Your task to perform on an android device: What's on my calendar today? Image 0: 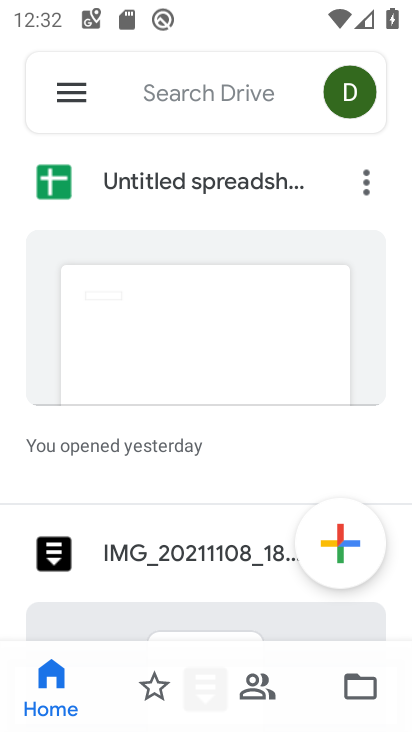
Step 0: press home button
Your task to perform on an android device: What's on my calendar today? Image 1: 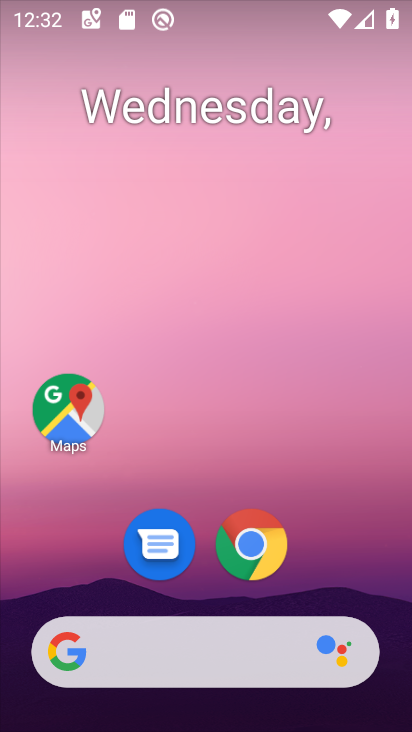
Step 1: drag from (201, 478) to (188, 99)
Your task to perform on an android device: What's on my calendar today? Image 2: 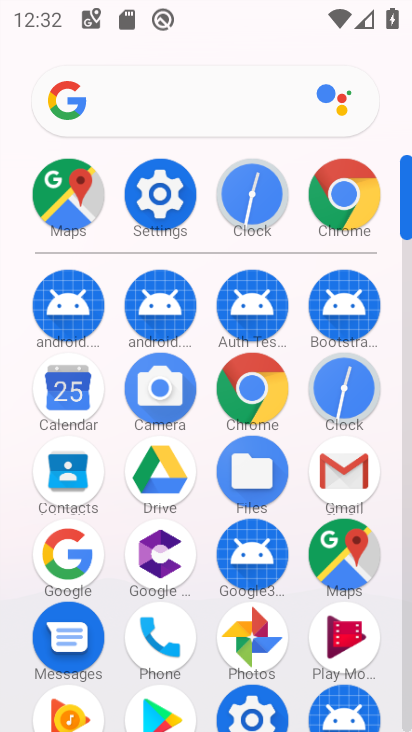
Step 2: click (76, 400)
Your task to perform on an android device: What's on my calendar today? Image 3: 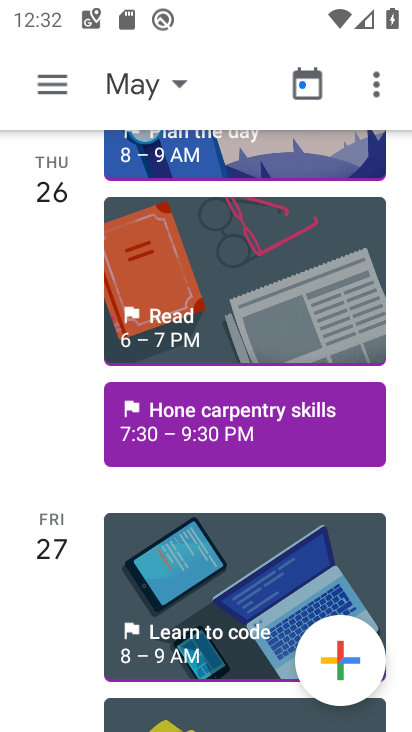
Step 3: click (73, 87)
Your task to perform on an android device: What's on my calendar today? Image 4: 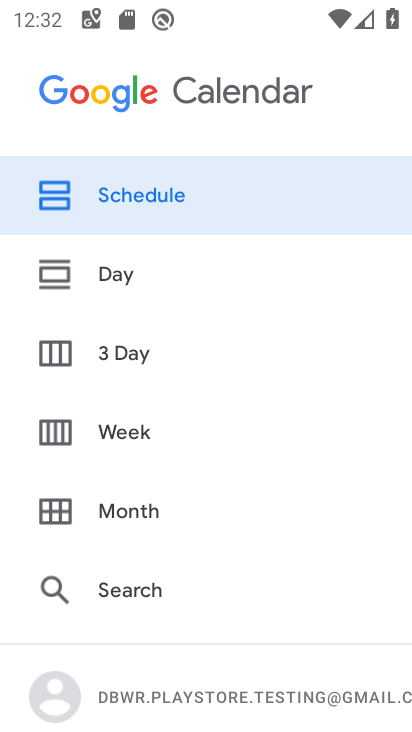
Step 4: click (139, 285)
Your task to perform on an android device: What's on my calendar today? Image 5: 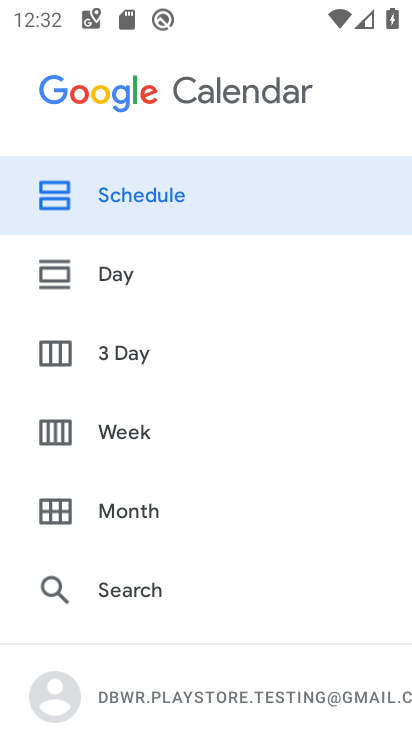
Step 5: click (141, 289)
Your task to perform on an android device: What's on my calendar today? Image 6: 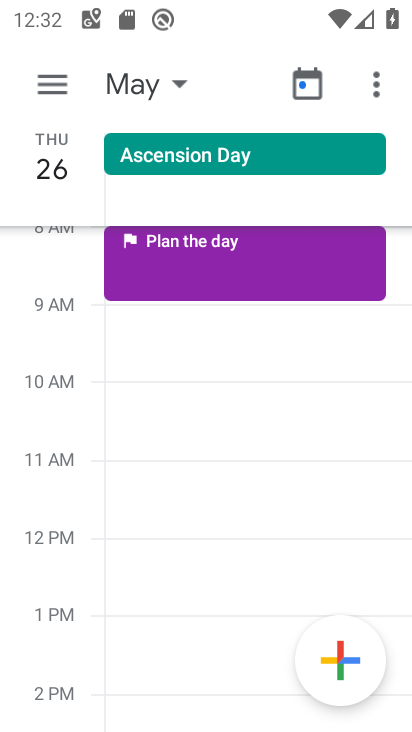
Step 6: task complete